Your task to perform on an android device: clear history in the chrome app Image 0: 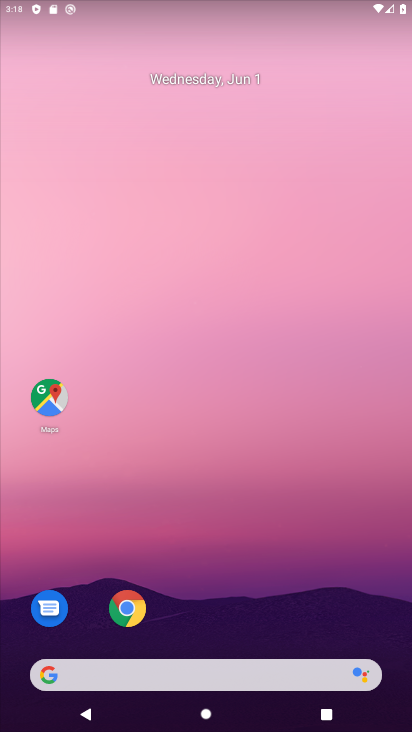
Step 0: click (131, 613)
Your task to perform on an android device: clear history in the chrome app Image 1: 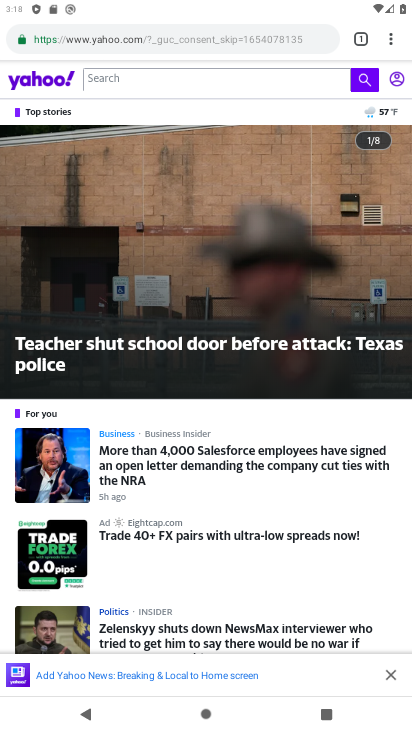
Step 1: click (391, 36)
Your task to perform on an android device: clear history in the chrome app Image 2: 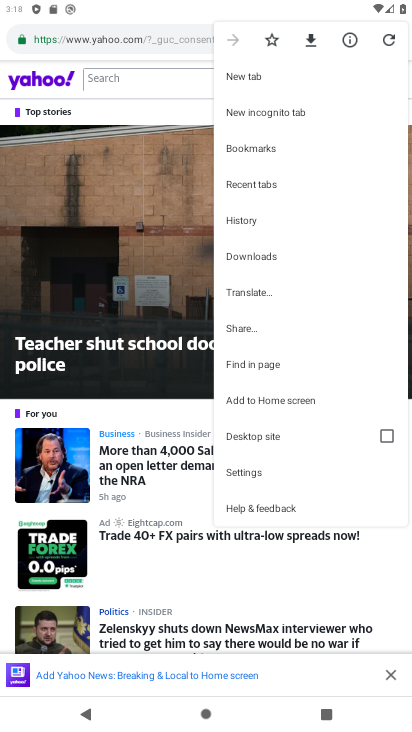
Step 2: click (245, 224)
Your task to perform on an android device: clear history in the chrome app Image 3: 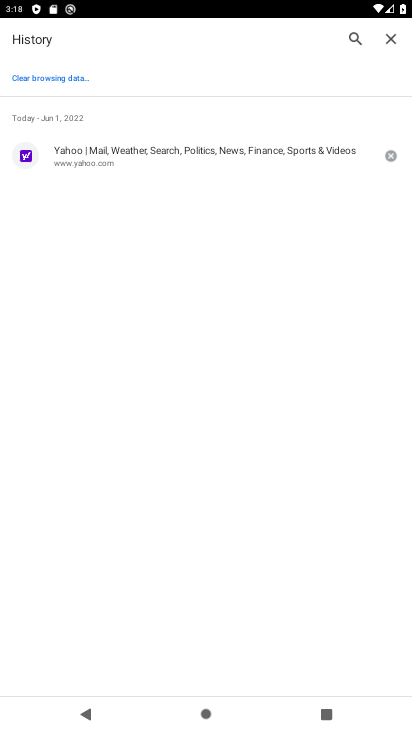
Step 3: click (43, 79)
Your task to perform on an android device: clear history in the chrome app Image 4: 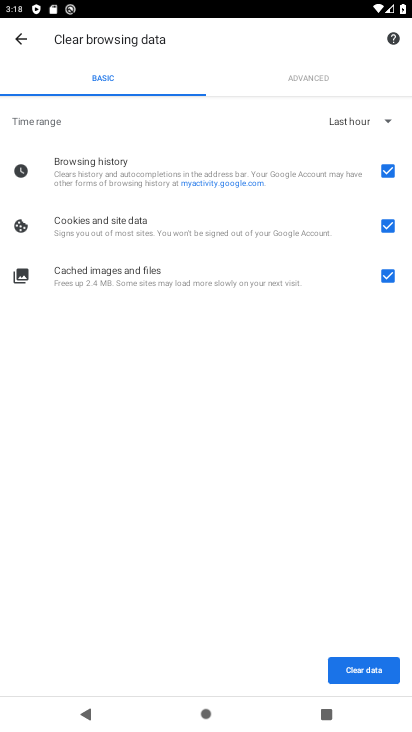
Step 4: click (357, 667)
Your task to perform on an android device: clear history in the chrome app Image 5: 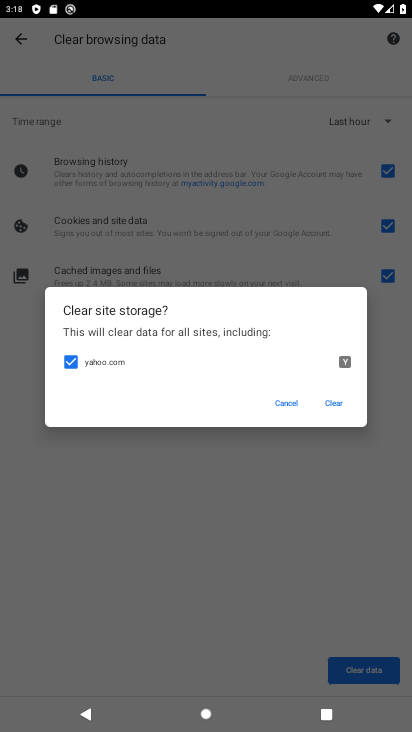
Step 5: click (327, 400)
Your task to perform on an android device: clear history in the chrome app Image 6: 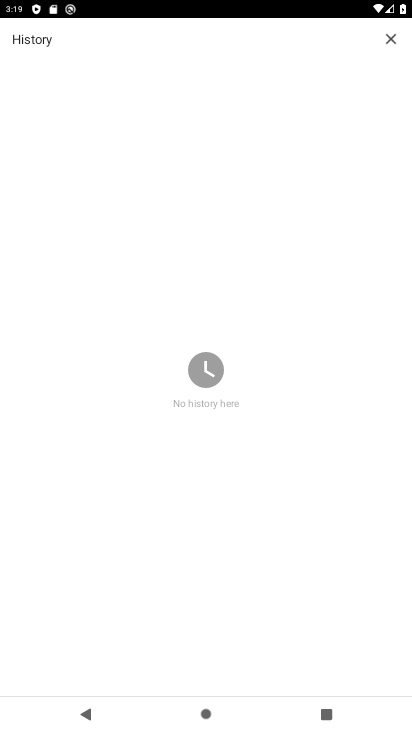
Step 6: task complete